Your task to perform on an android device: turn on priority inbox in the gmail app Image 0: 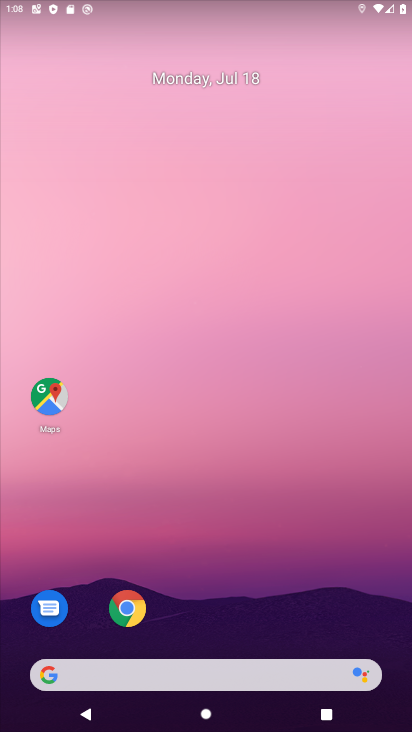
Step 0: drag from (354, 615) to (272, 188)
Your task to perform on an android device: turn on priority inbox in the gmail app Image 1: 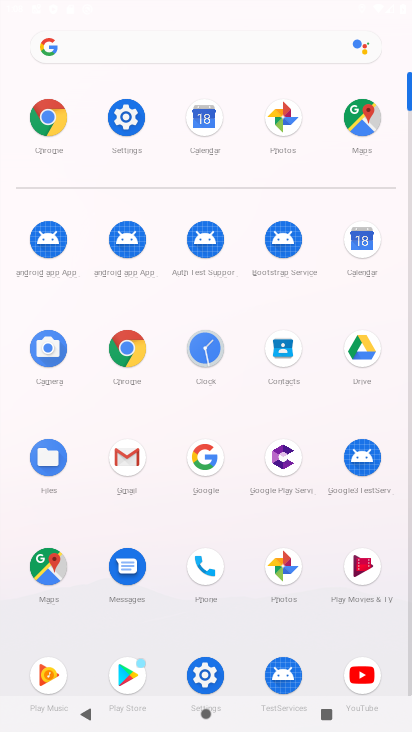
Step 1: click (125, 447)
Your task to perform on an android device: turn on priority inbox in the gmail app Image 2: 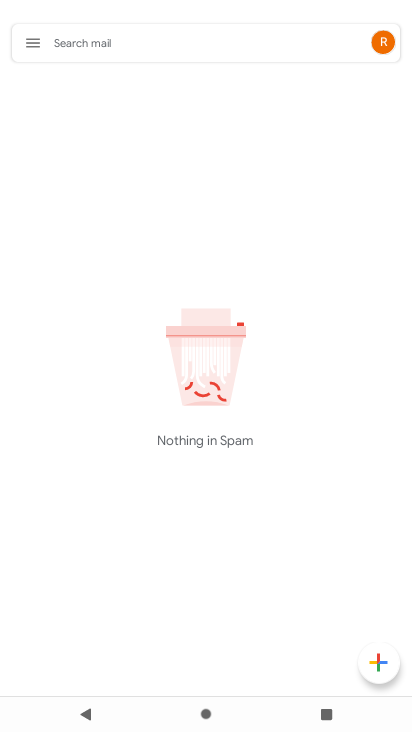
Step 2: click (32, 50)
Your task to perform on an android device: turn on priority inbox in the gmail app Image 3: 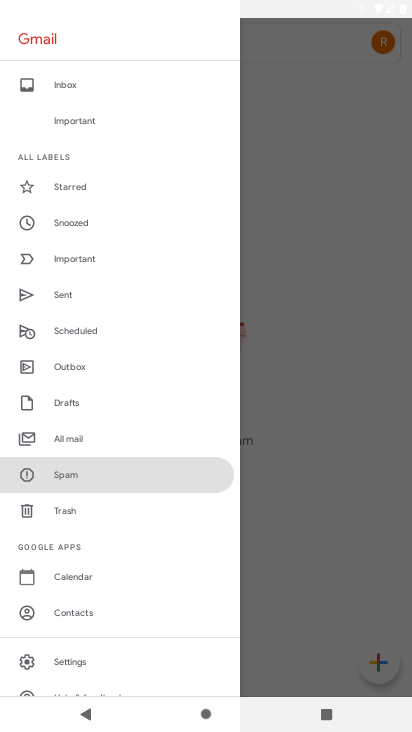
Step 3: click (79, 663)
Your task to perform on an android device: turn on priority inbox in the gmail app Image 4: 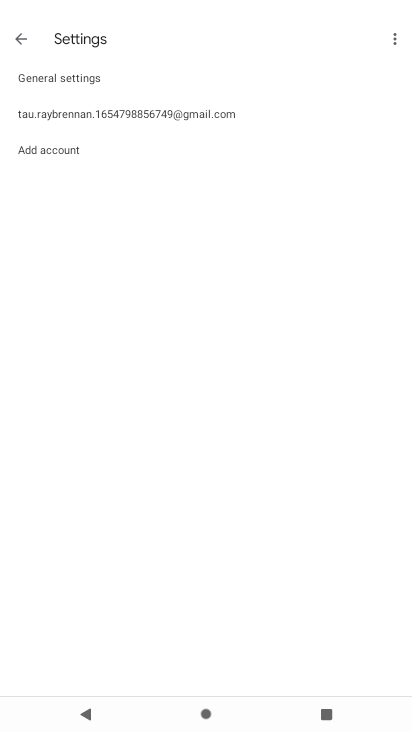
Step 4: click (233, 115)
Your task to perform on an android device: turn on priority inbox in the gmail app Image 5: 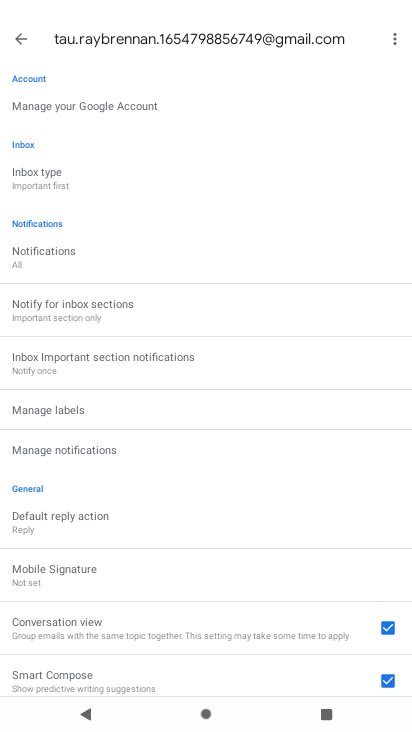
Step 5: click (138, 179)
Your task to perform on an android device: turn on priority inbox in the gmail app Image 6: 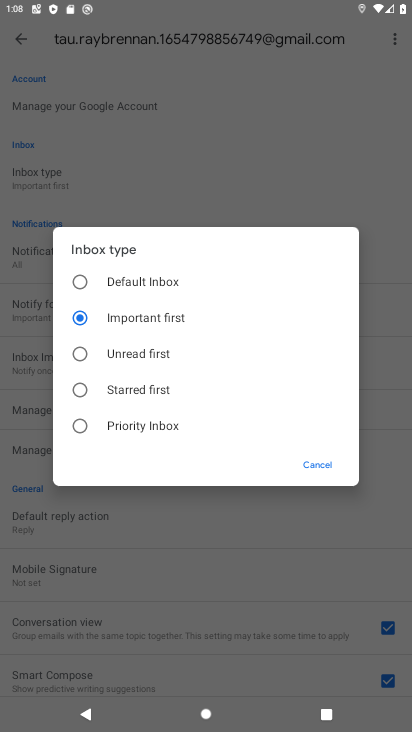
Step 6: click (127, 429)
Your task to perform on an android device: turn on priority inbox in the gmail app Image 7: 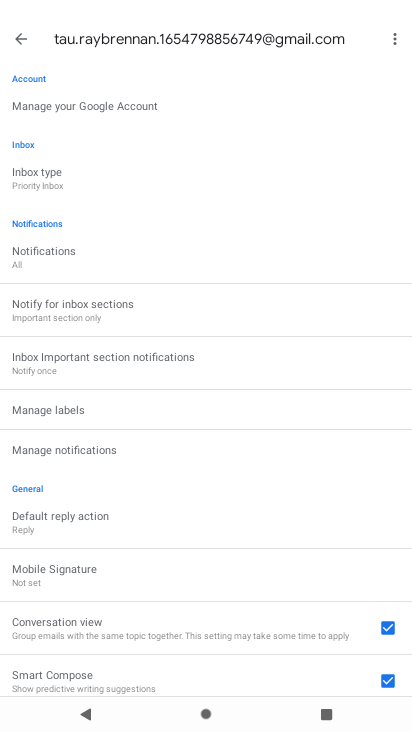
Step 7: task complete